Your task to perform on an android device: Open Google Maps Image 0: 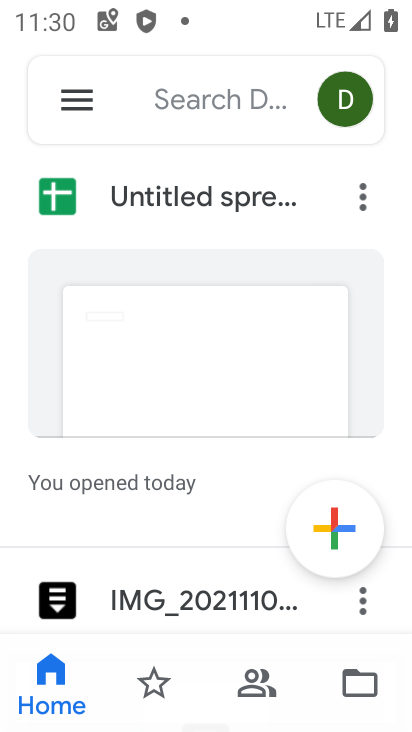
Step 0: press home button
Your task to perform on an android device: Open Google Maps Image 1: 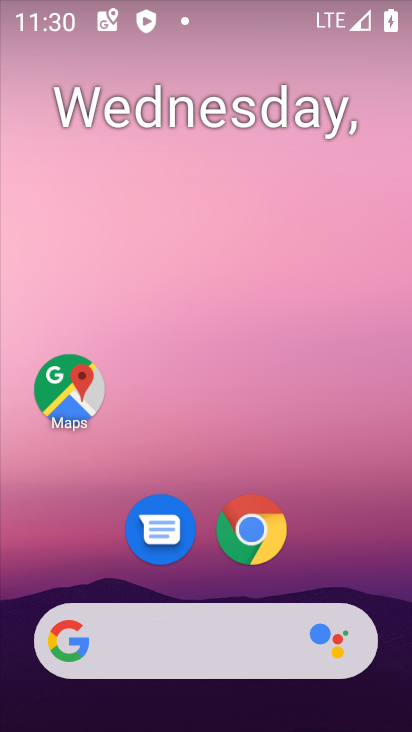
Step 1: drag from (233, 587) to (144, 8)
Your task to perform on an android device: Open Google Maps Image 2: 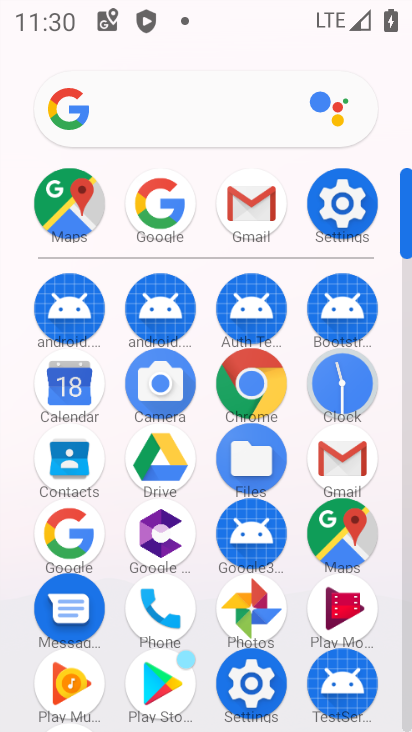
Step 2: click (334, 530)
Your task to perform on an android device: Open Google Maps Image 3: 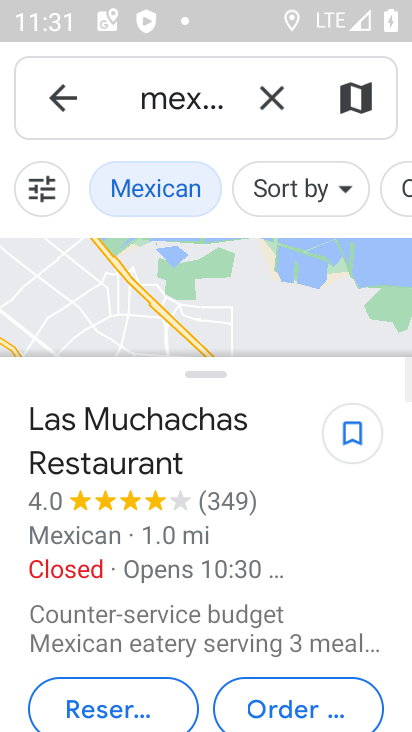
Step 3: task complete